Your task to perform on an android device: check storage Image 0: 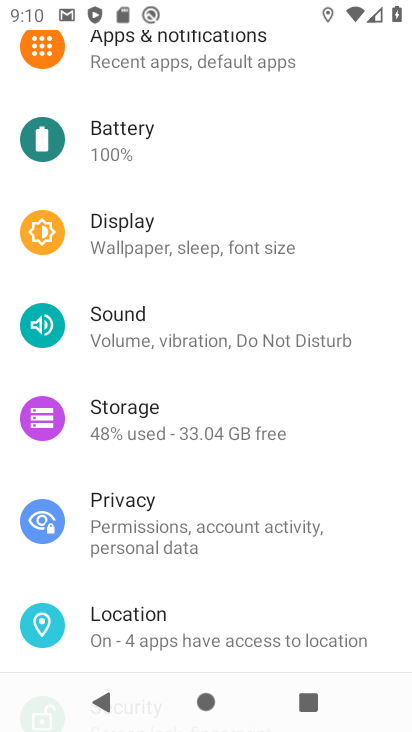
Step 0: click (150, 424)
Your task to perform on an android device: check storage Image 1: 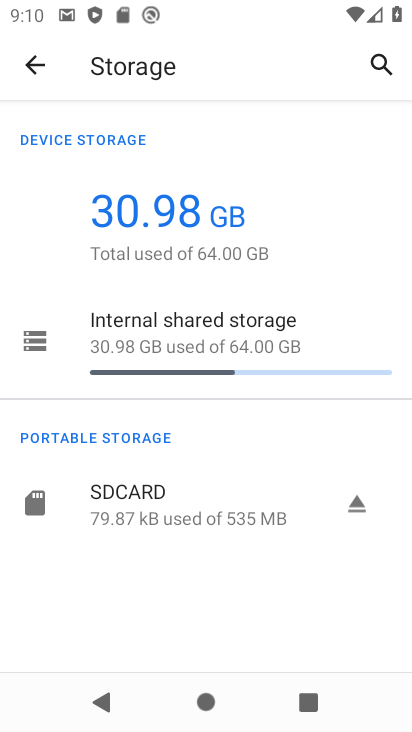
Step 1: task complete